Your task to perform on an android device: Open eBay Image 0: 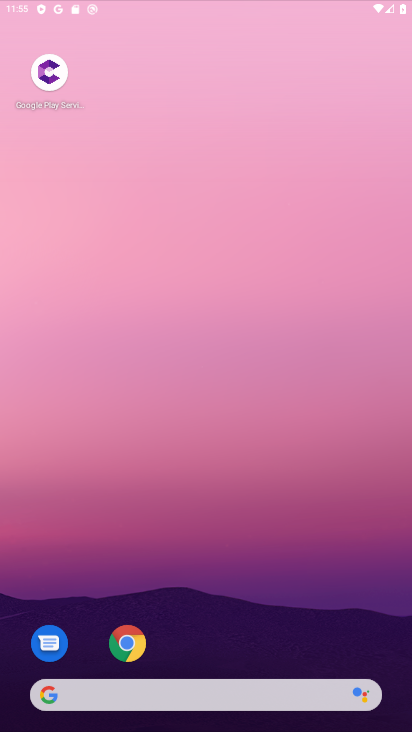
Step 0: click (169, 11)
Your task to perform on an android device: Open eBay Image 1: 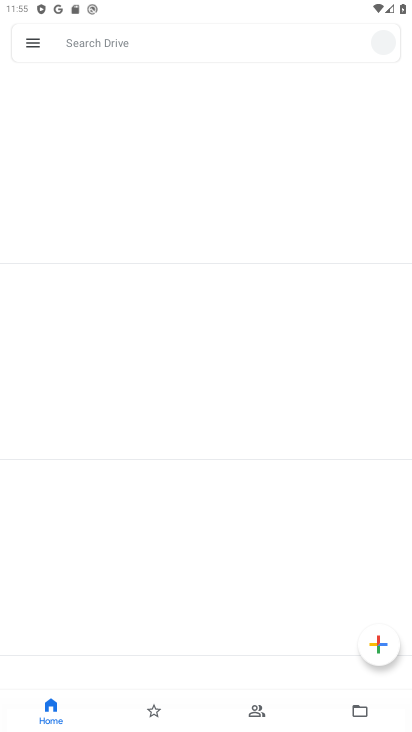
Step 1: press home button
Your task to perform on an android device: Open eBay Image 2: 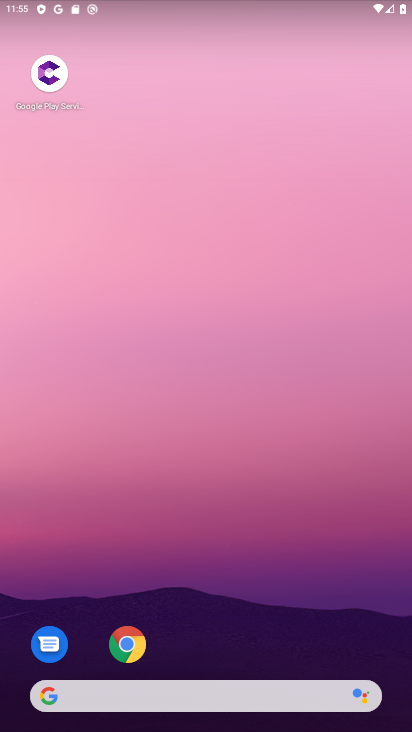
Step 2: drag from (259, 571) to (157, 89)
Your task to perform on an android device: Open eBay Image 3: 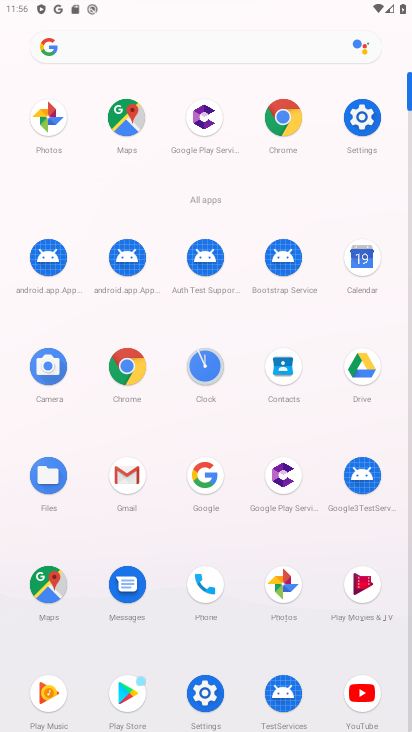
Step 3: click (285, 123)
Your task to perform on an android device: Open eBay Image 4: 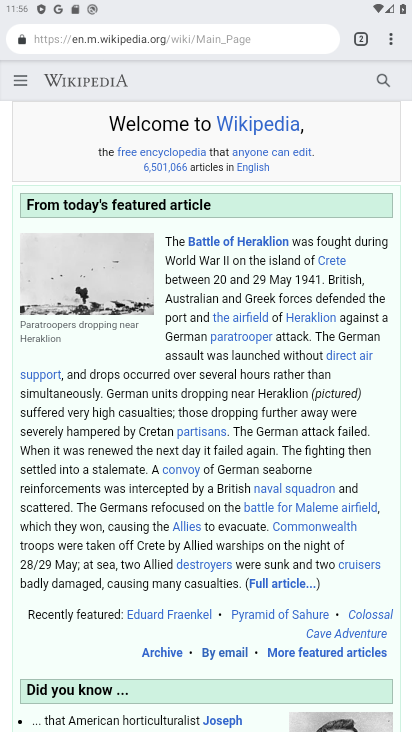
Step 4: click (390, 40)
Your task to perform on an android device: Open eBay Image 5: 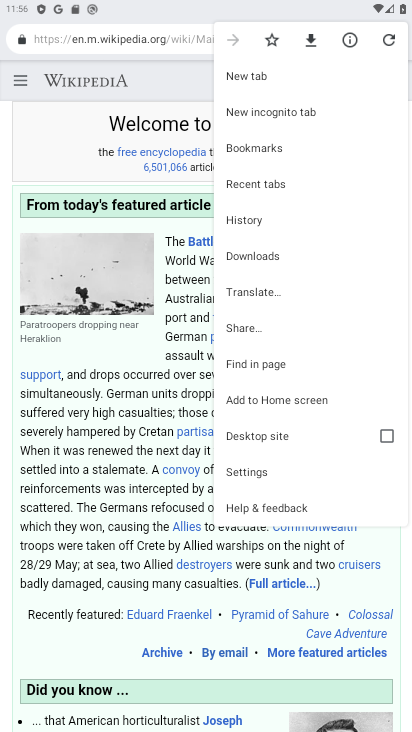
Step 5: click (261, 70)
Your task to perform on an android device: Open eBay Image 6: 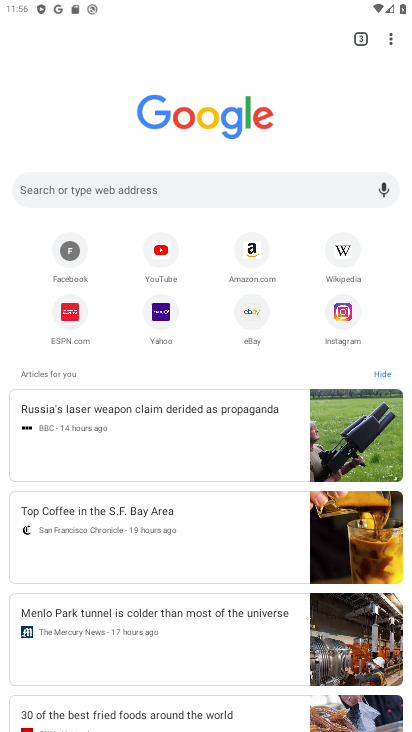
Step 6: click (232, 311)
Your task to perform on an android device: Open eBay Image 7: 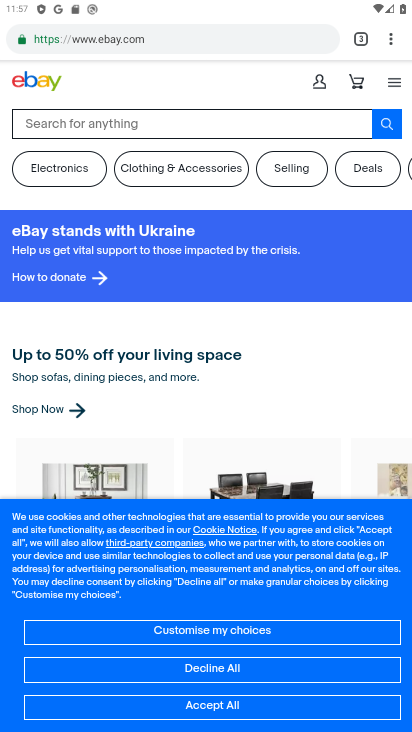
Step 7: task complete